Your task to perform on an android device: What is the news today? Image 0: 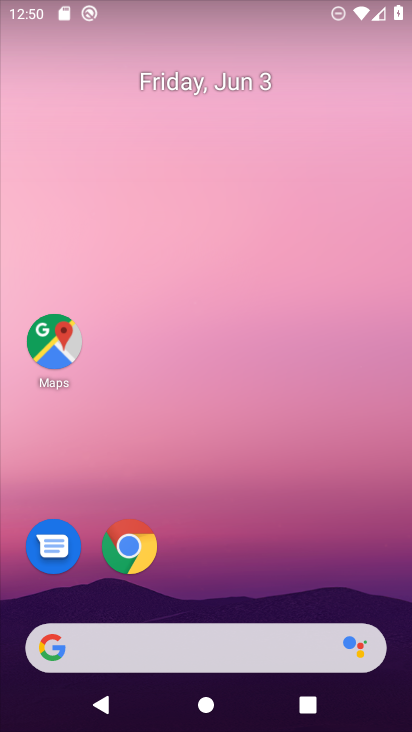
Step 0: drag from (239, 554) to (226, 123)
Your task to perform on an android device: What is the news today? Image 1: 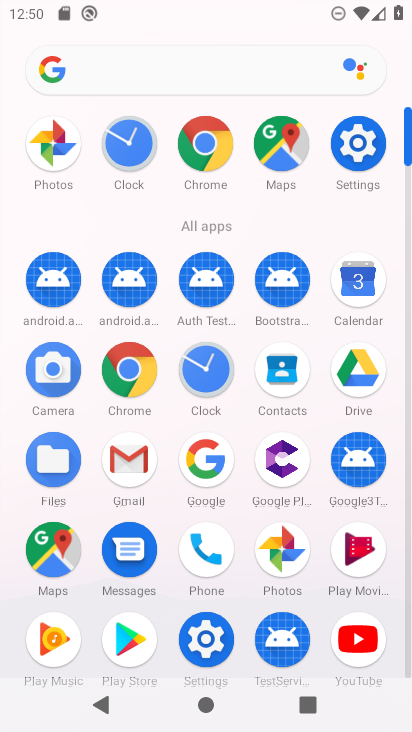
Step 1: click (202, 453)
Your task to perform on an android device: What is the news today? Image 2: 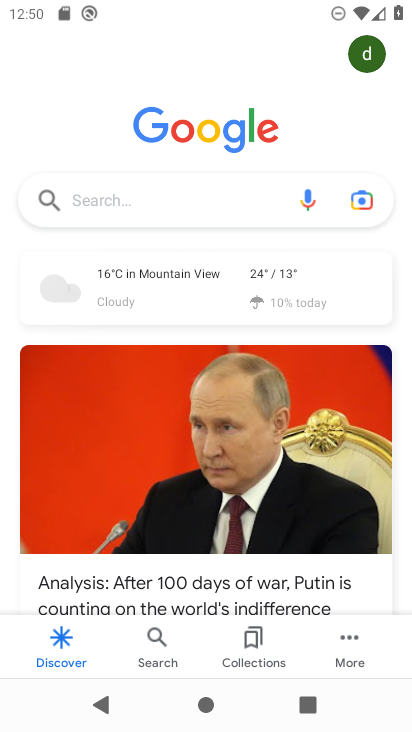
Step 2: click (156, 201)
Your task to perform on an android device: What is the news today? Image 3: 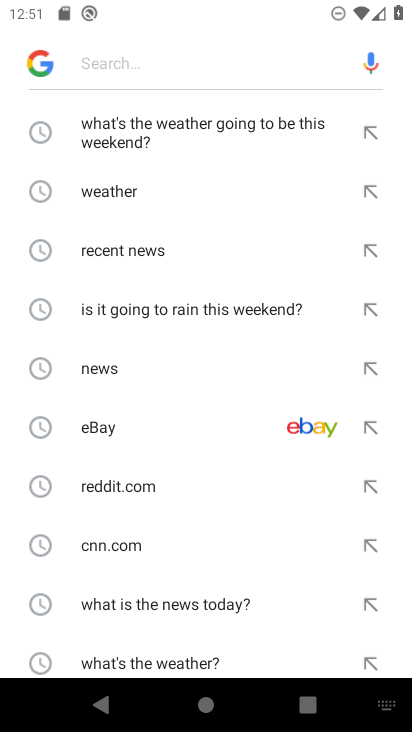
Step 3: type "news today"
Your task to perform on an android device: What is the news today? Image 4: 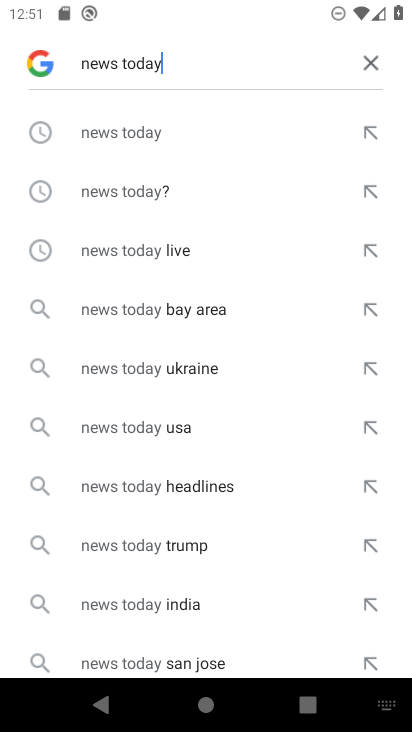
Step 4: click (137, 195)
Your task to perform on an android device: What is the news today? Image 5: 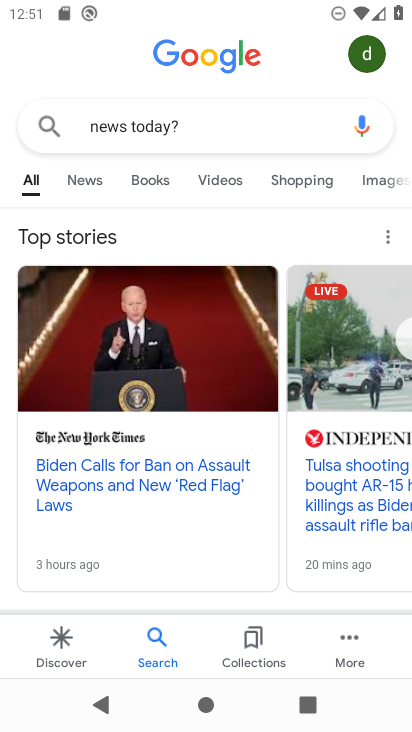
Step 5: task complete